Your task to perform on an android device: set the stopwatch Image 0: 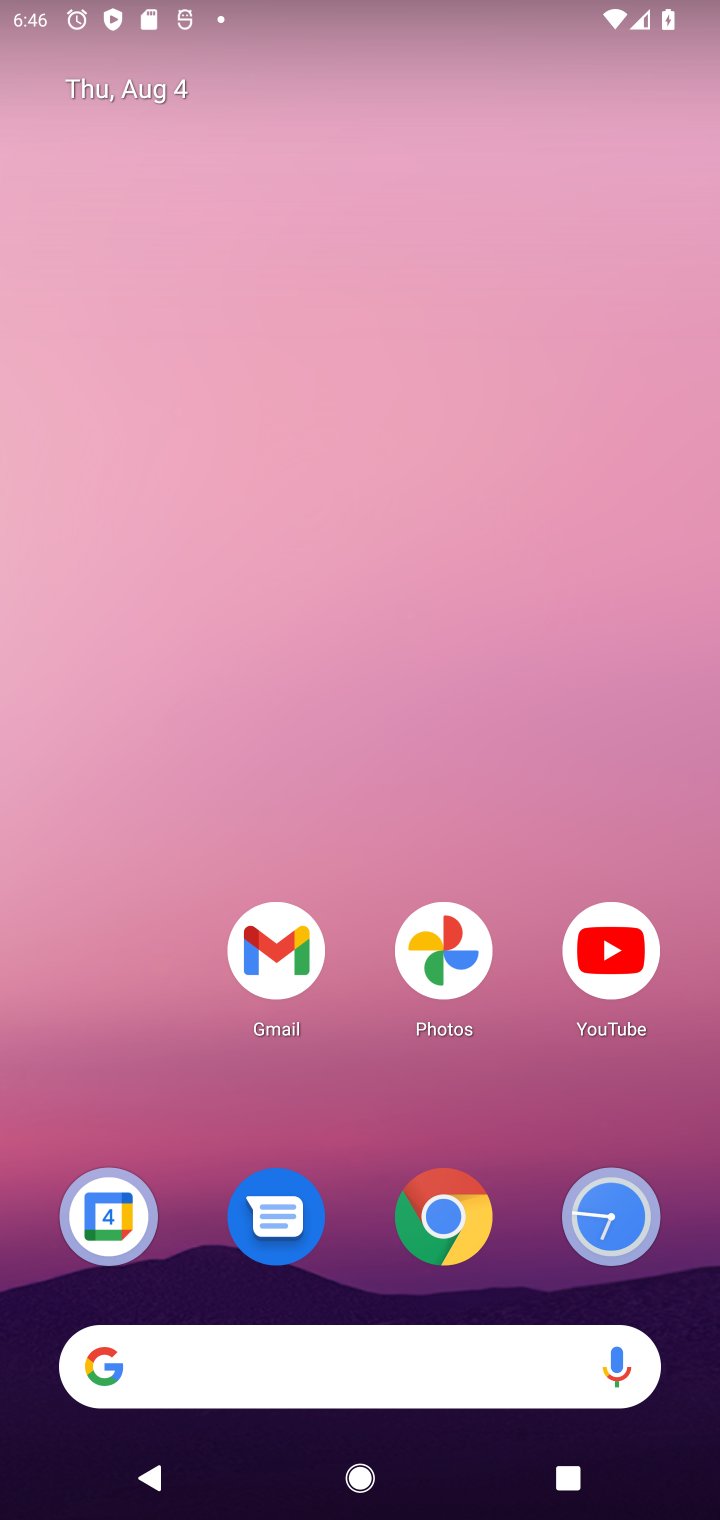
Step 0: click (635, 1218)
Your task to perform on an android device: set the stopwatch Image 1: 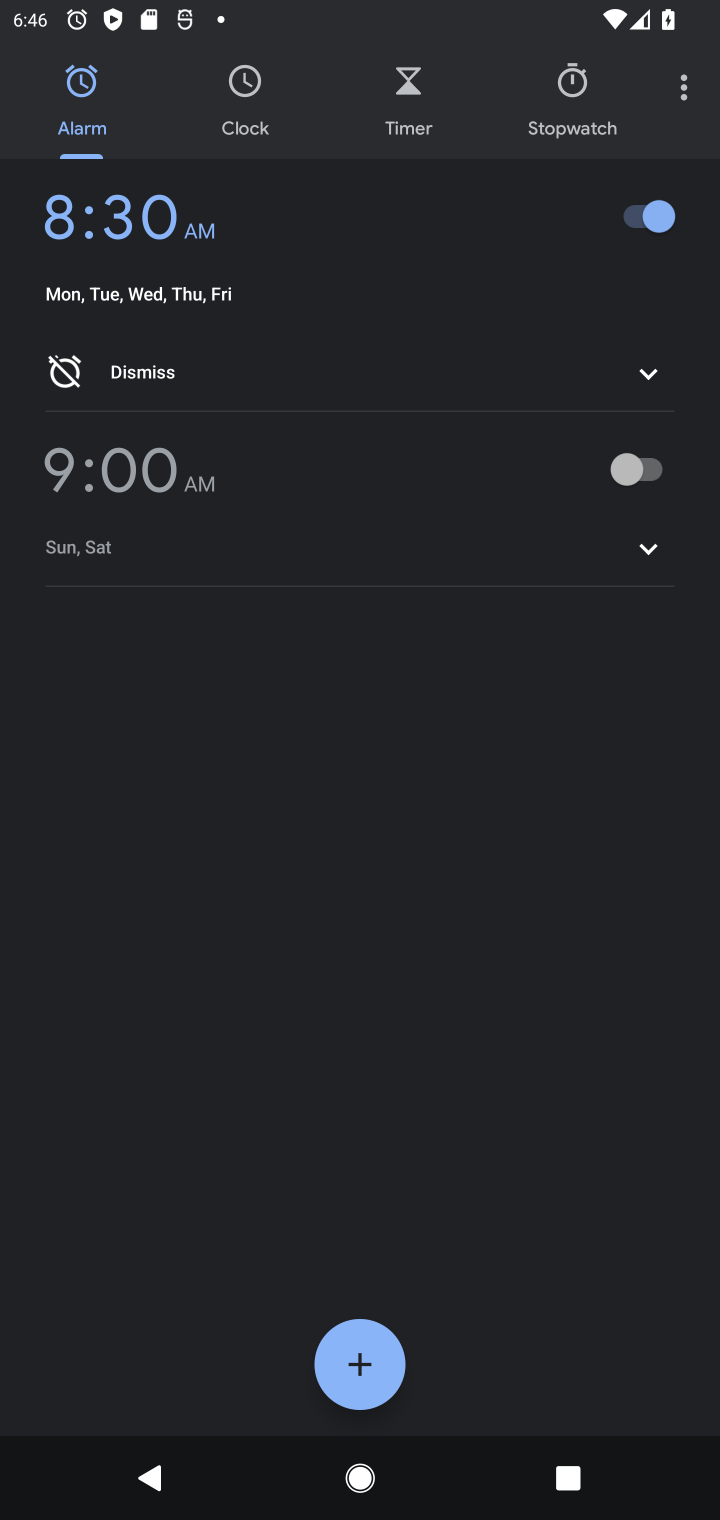
Step 1: click (567, 97)
Your task to perform on an android device: set the stopwatch Image 2: 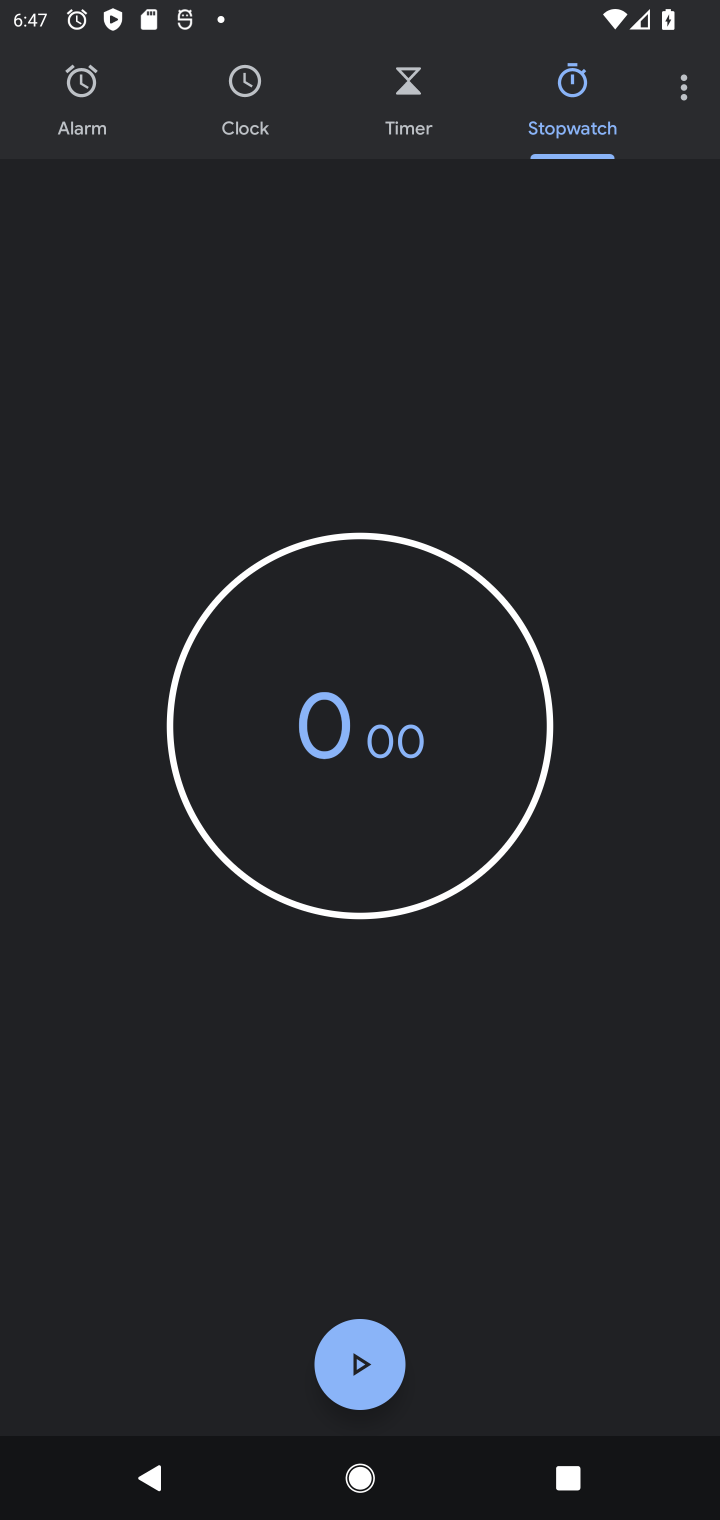
Step 2: task complete